Your task to perform on an android device: turn pop-ups off in chrome Image 0: 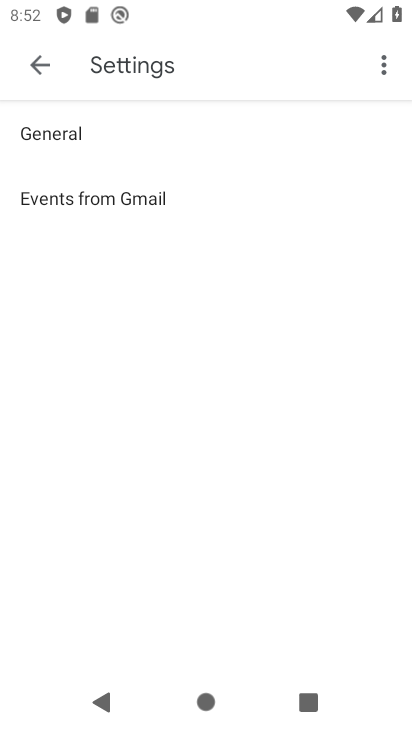
Step 0: press home button
Your task to perform on an android device: turn pop-ups off in chrome Image 1: 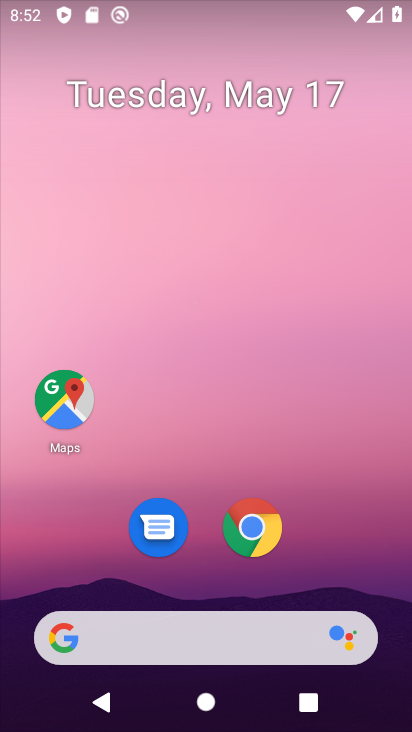
Step 1: click (258, 541)
Your task to perform on an android device: turn pop-ups off in chrome Image 2: 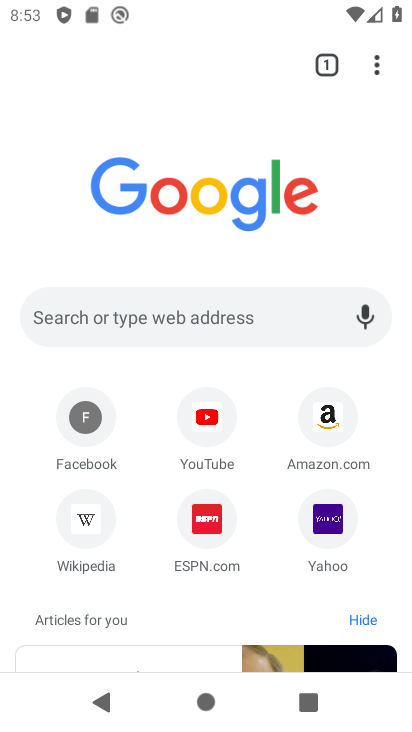
Step 2: click (383, 60)
Your task to perform on an android device: turn pop-ups off in chrome Image 3: 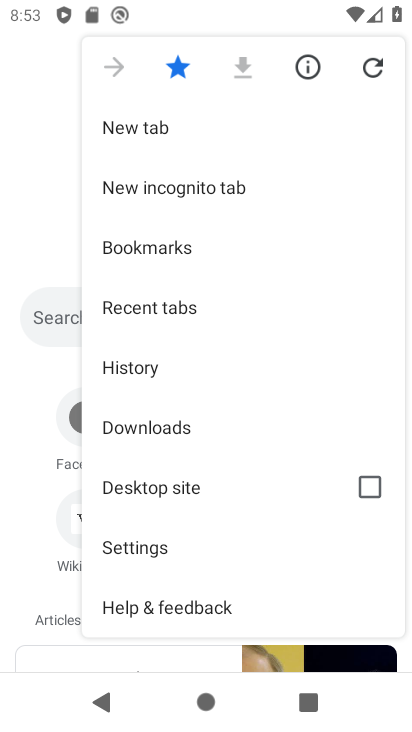
Step 3: drag from (239, 510) to (316, 225)
Your task to perform on an android device: turn pop-ups off in chrome Image 4: 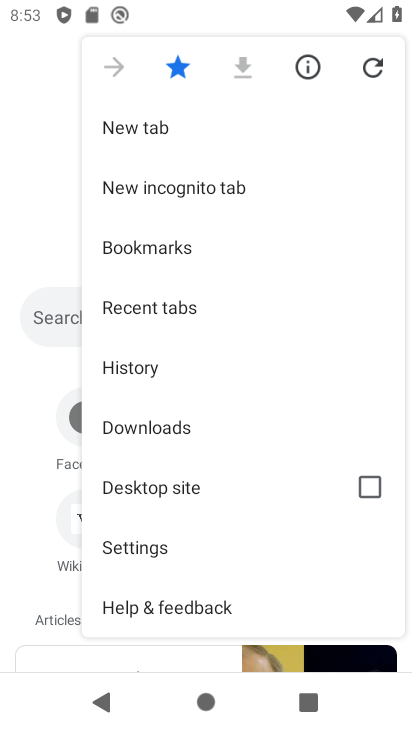
Step 4: click (190, 559)
Your task to perform on an android device: turn pop-ups off in chrome Image 5: 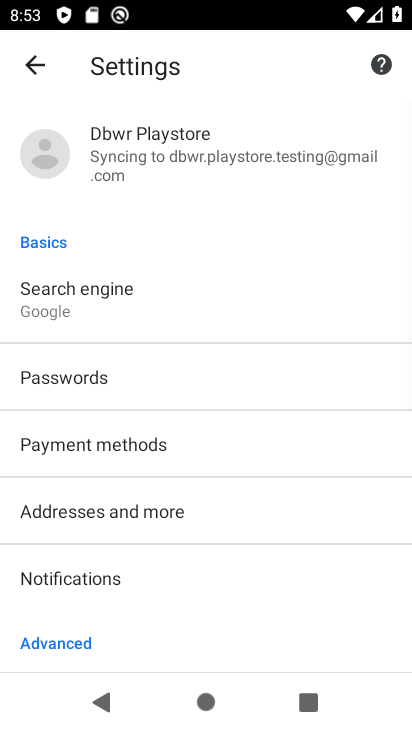
Step 5: drag from (226, 563) to (229, 368)
Your task to perform on an android device: turn pop-ups off in chrome Image 6: 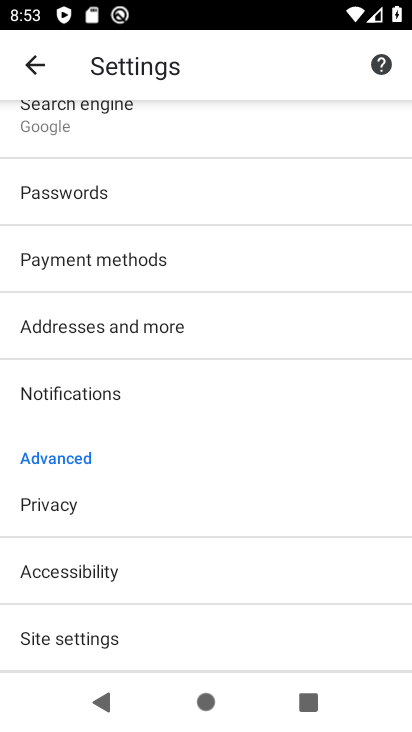
Step 6: click (124, 622)
Your task to perform on an android device: turn pop-ups off in chrome Image 7: 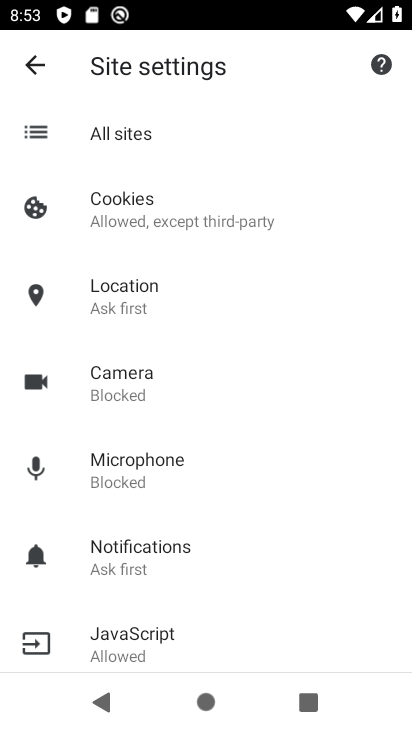
Step 7: drag from (174, 629) to (249, 293)
Your task to perform on an android device: turn pop-ups off in chrome Image 8: 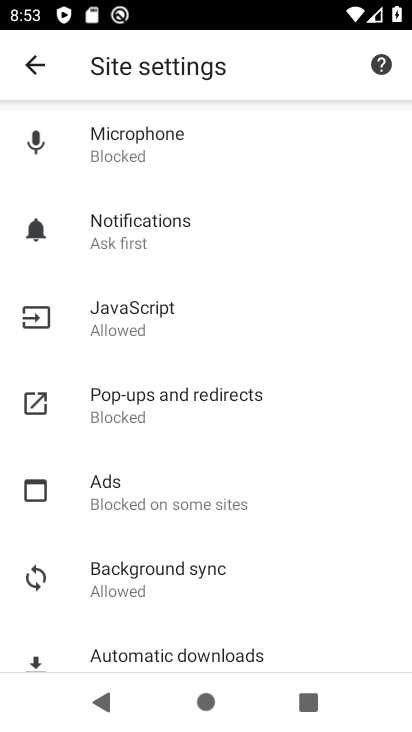
Step 8: click (157, 448)
Your task to perform on an android device: turn pop-ups off in chrome Image 9: 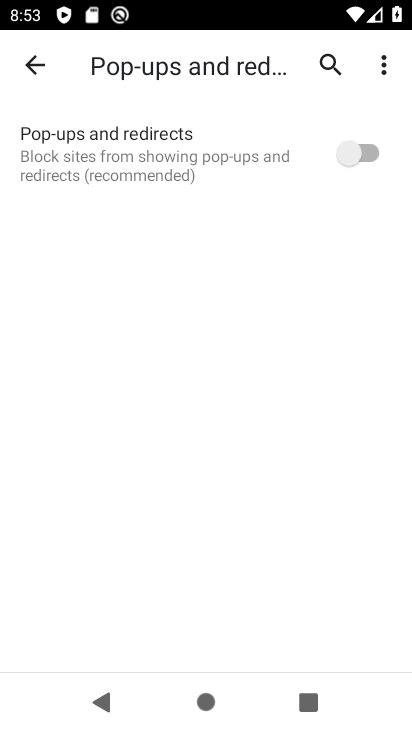
Step 9: task complete